Your task to perform on an android device: turn pop-ups on in chrome Image 0: 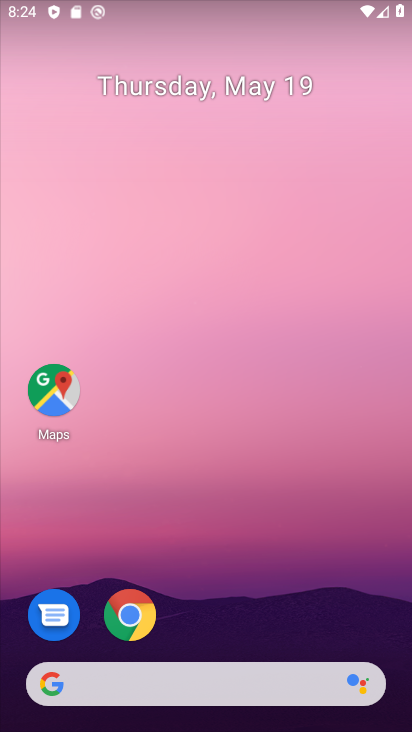
Step 0: click (140, 608)
Your task to perform on an android device: turn pop-ups on in chrome Image 1: 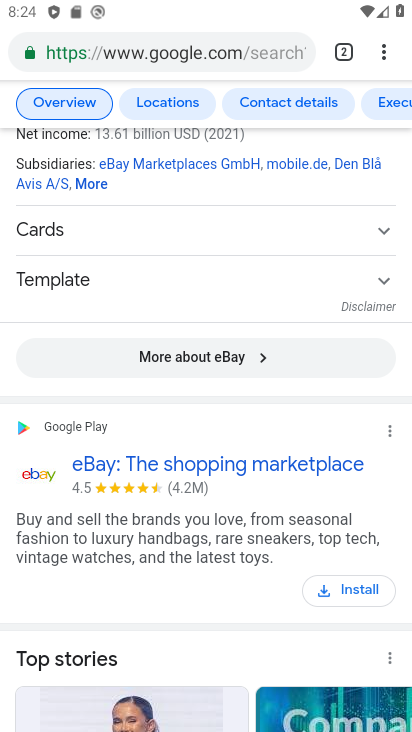
Step 1: click (386, 47)
Your task to perform on an android device: turn pop-ups on in chrome Image 2: 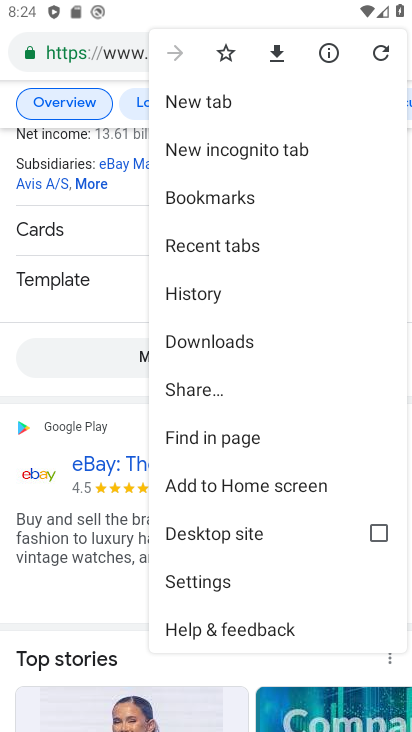
Step 2: click (247, 579)
Your task to perform on an android device: turn pop-ups on in chrome Image 3: 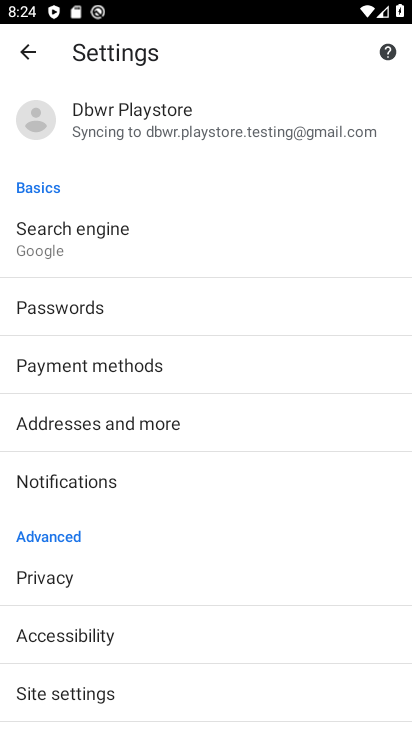
Step 3: click (205, 686)
Your task to perform on an android device: turn pop-ups on in chrome Image 4: 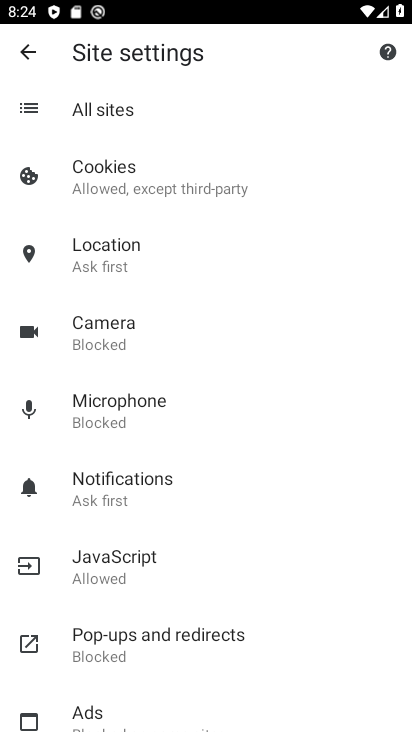
Step 4: click (136, 642)
Your task to perform on an android device: turn pop-ups on in chrome Image 5: 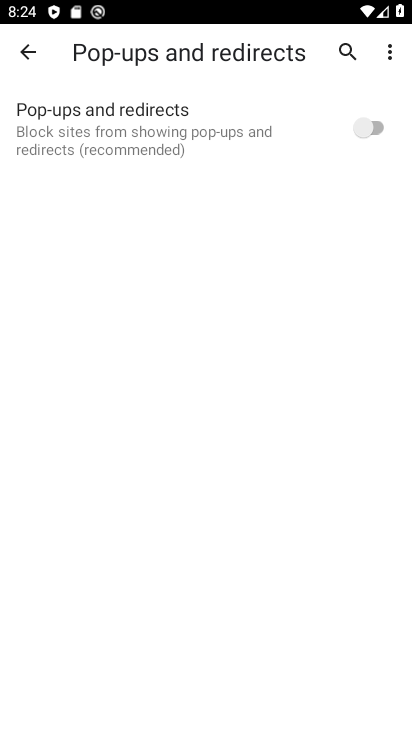
Step 5: click (365, 129)
Your task to perform on an android device: turn pop-ups on in chrome Image 6: 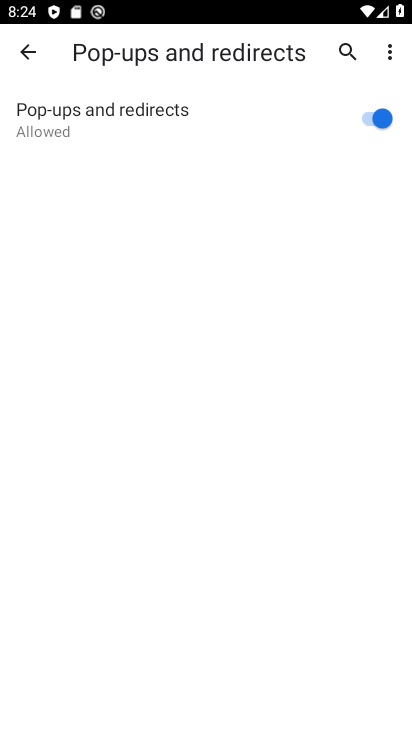
Step 6: task complete